Your task to perform on an android device: open wifi settings Image 0: 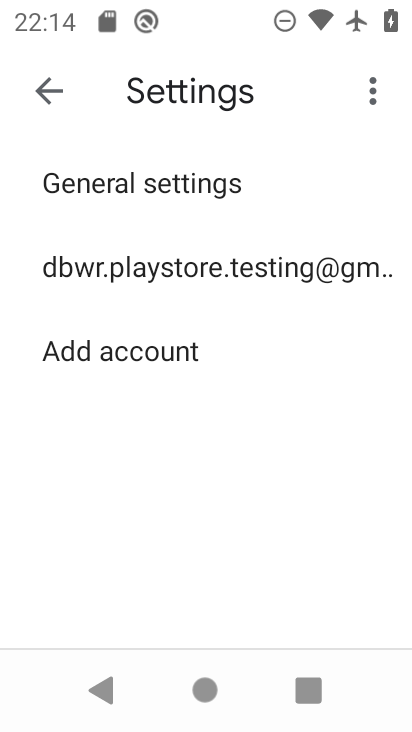
Step 0: press home button
Your task to perform on an android device: open wifi settings Image 1: 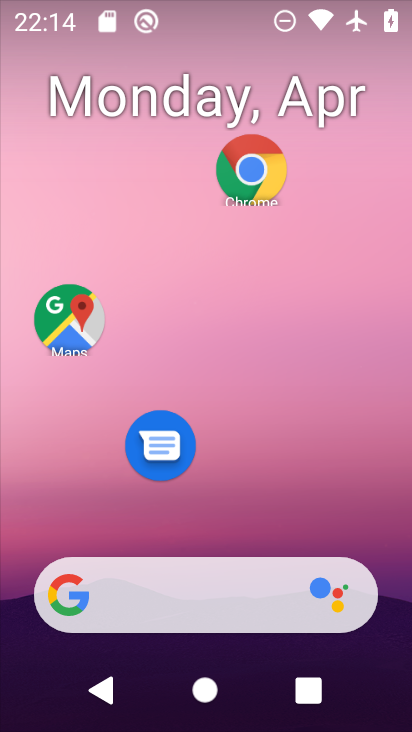
Step 1: drag from (228, 529) to (224, 135)
Your task to perform on an android device: open wifi settings Image 2: 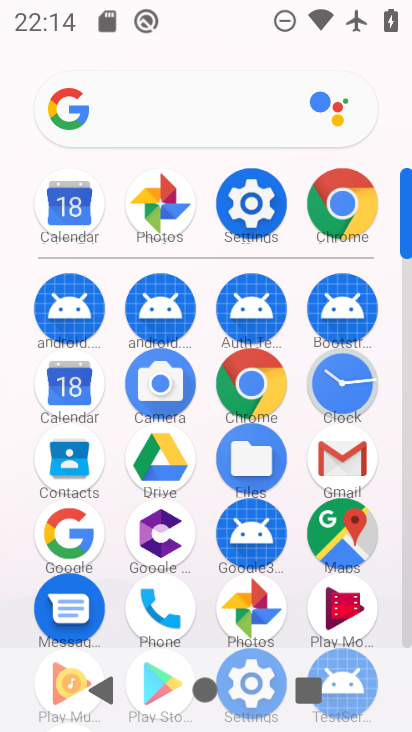
Step 2: click (247, 216)
Your task to perform on an android device: open wifi settings Image 3: 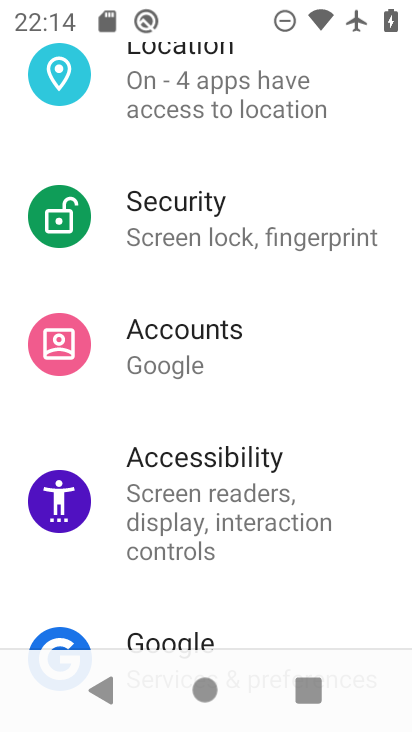
Step 3: drag from (212, 166) to (206, 524)
Your task to perform on an android device: open wifi settings Image 4: 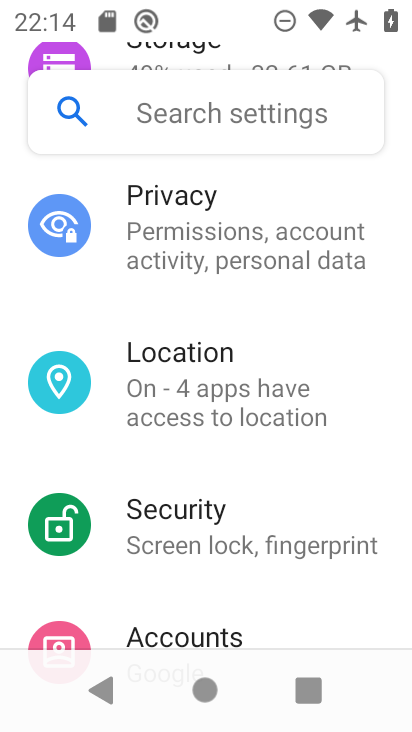
Step 4: drag from (245, 172) to (249, 454)
Your task to perform on an android device: open wifi settings Image 5: 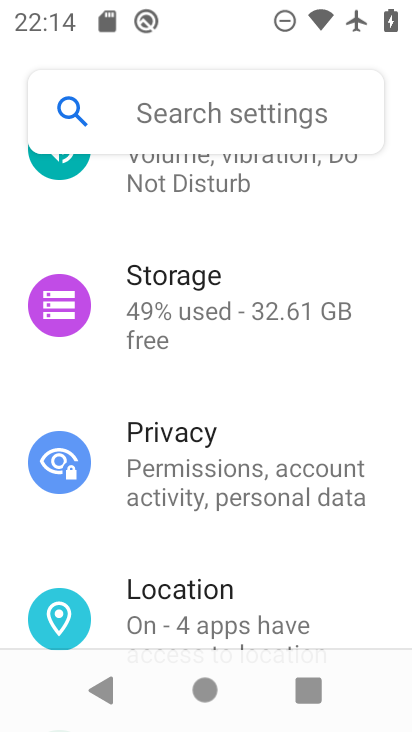
Step 5: drag from (215, 216) to (224, 543)
Your task to perform on an android device: open wifi settings Image 6: 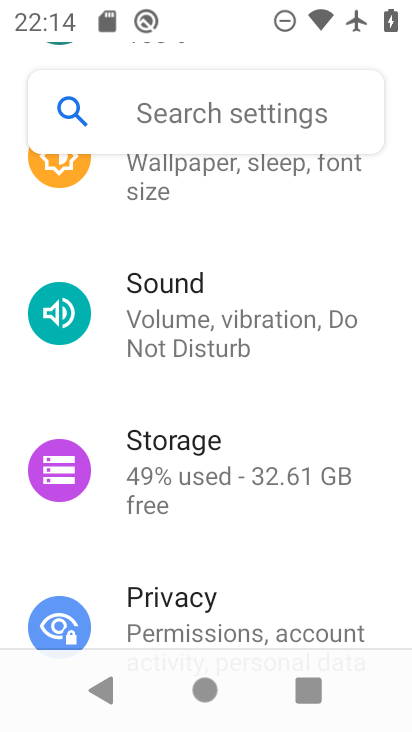
Step 6: drag from (222, 260) to (233, 570)
Your task to perform on an android device: open wifi settings Image 7: 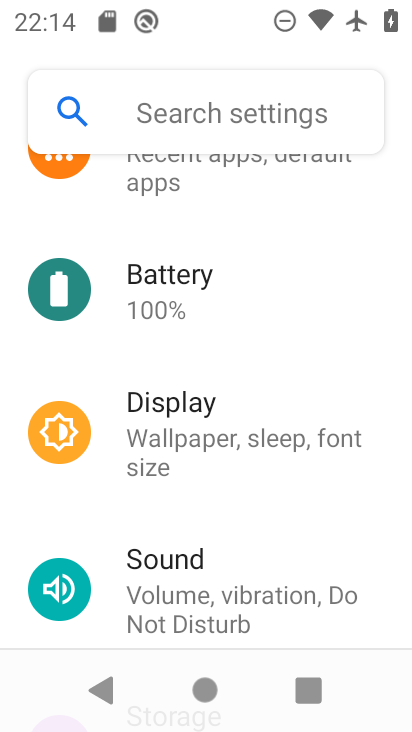
Step 7: drag from (234, 228) to (266, 536)
Your task to perform on an android device: open wifi settings Image 8: 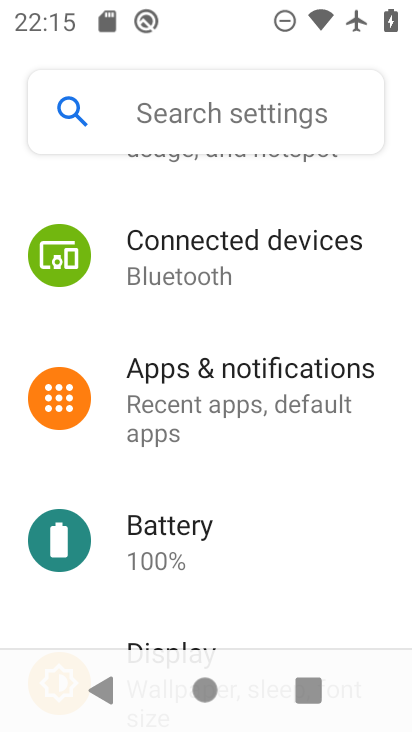
Step 8: drag from (252, 199) to (289, 562)
Your task to perform on an android device: open wifi settings Image 9: 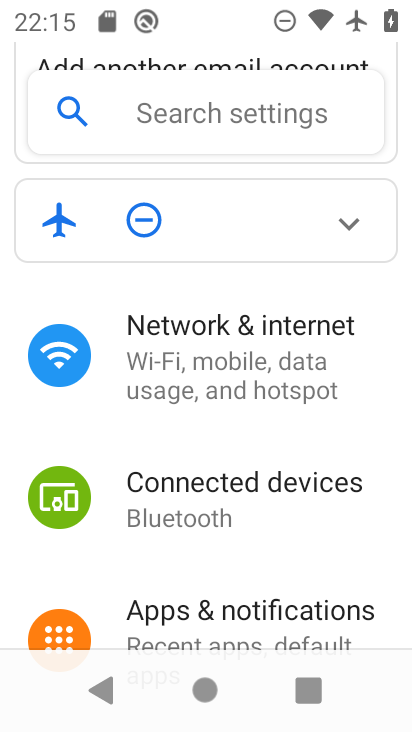
Step 9: click (244, 363)
Your task to perform on an android device: open wifi settings Image 10: 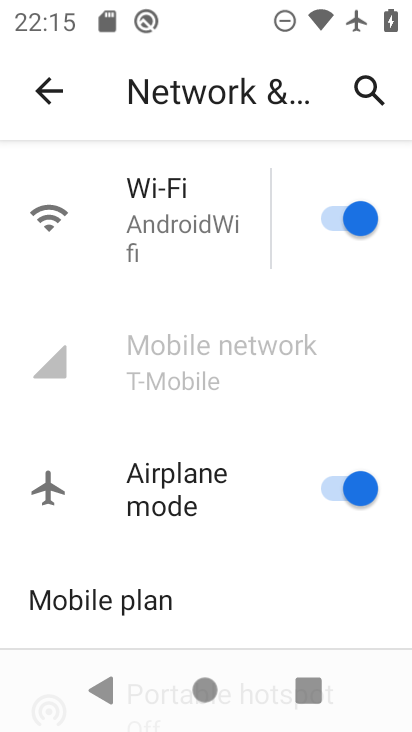
Step 10: click (161, 231)
Your task to perform on an android device: open wifi settings Image 11: 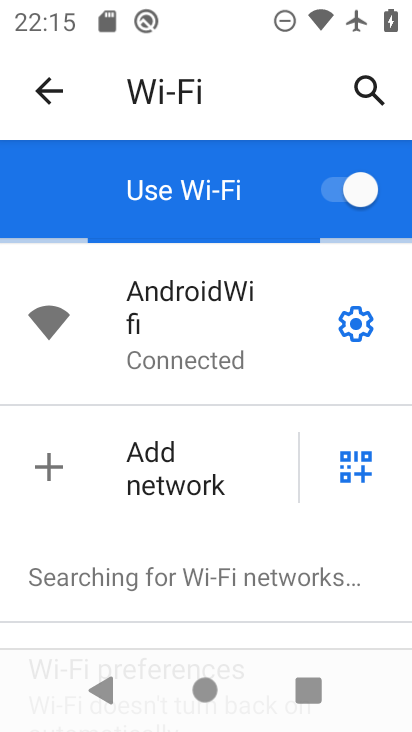
Step 11: task complete